Your task to perform on an android device: Search for asus rog on bestbuy, select the first entry, and add it to the cart. Image 0: 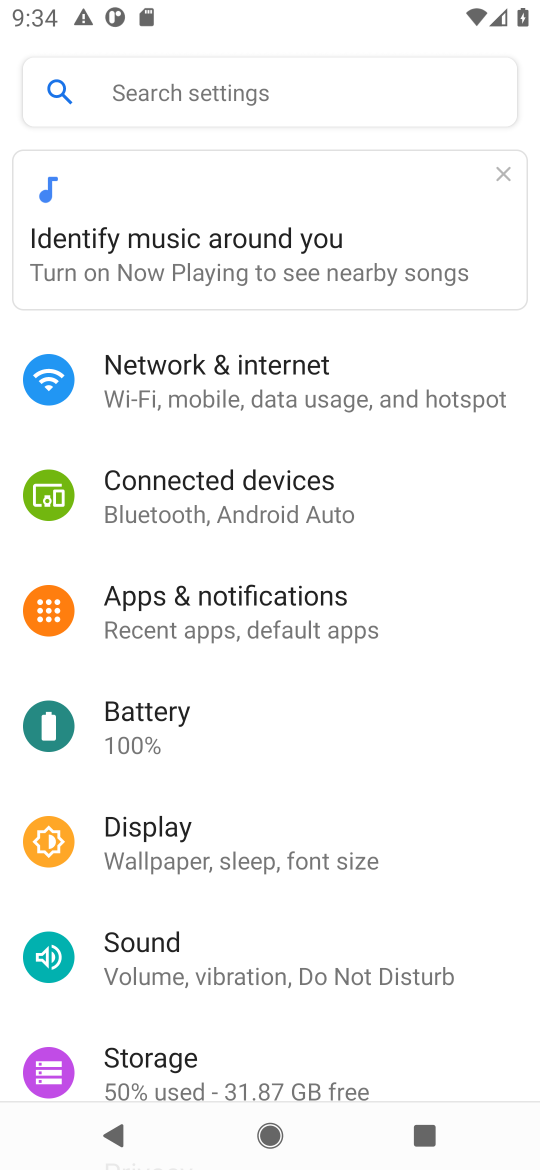
Step 0: press home button
Your task to perform on an android device: Search for asus rog on bestbuy, select the first entry, and add it to the cart. Image 1: 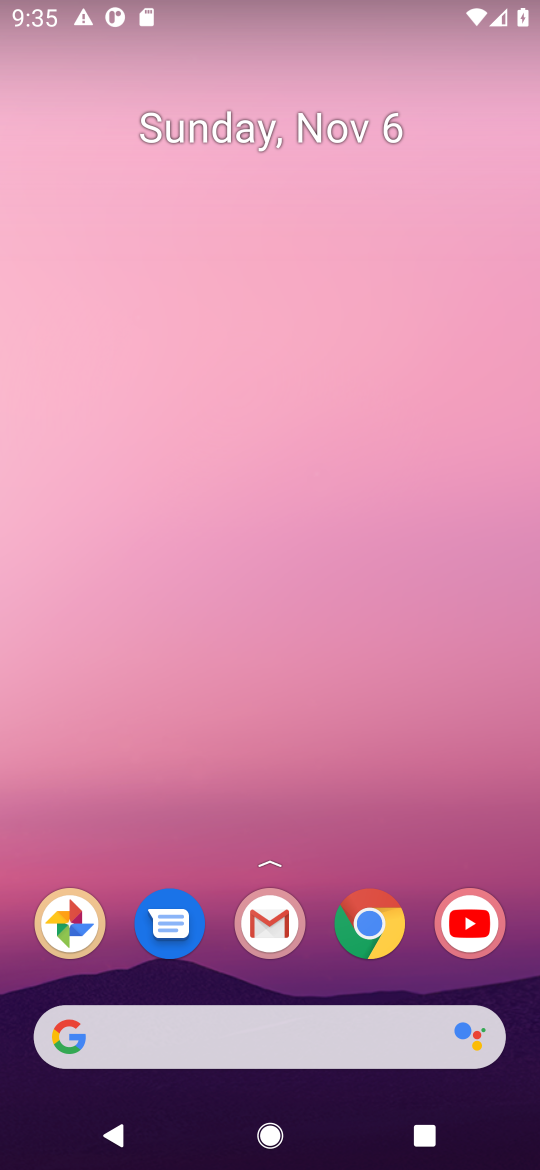
Step 1: click (359, 928)
Your task to perform on an android device: Search for asus rog on bestbuy, select the first entry, and add it to the cart. Image 2: 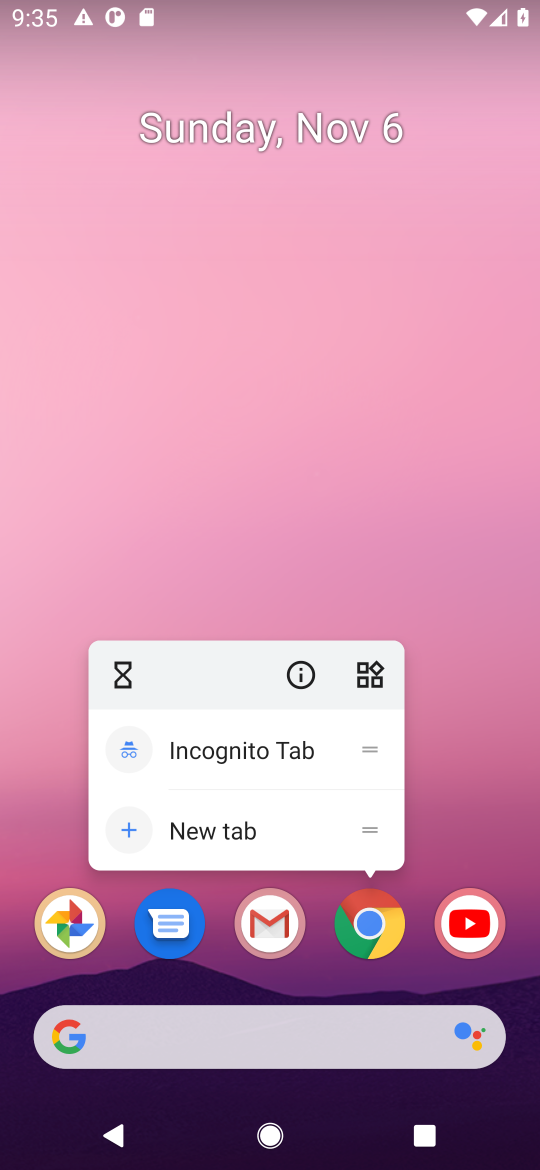
Step 2: click (367, 931)
Your task to perform on an android device: Search for asus rog on bestbuy, select the first entry, and add it to the cart. Image 3: 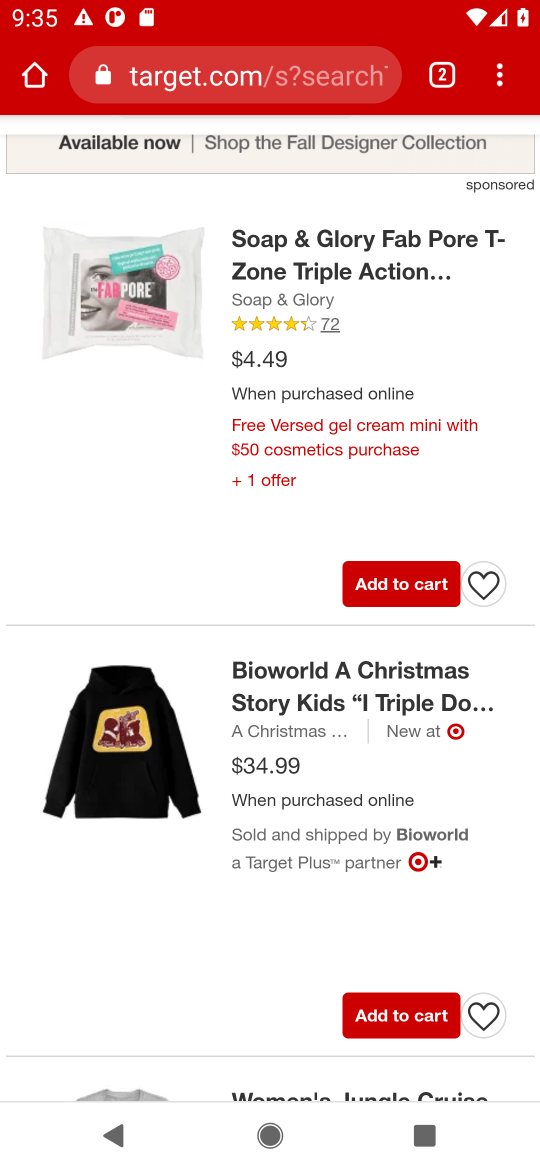
Step 3: click (167, 82)
Your task to perform on an android device: Search for asus rog on bestbuy, select the first entry, and add it to the cart. Image 4: 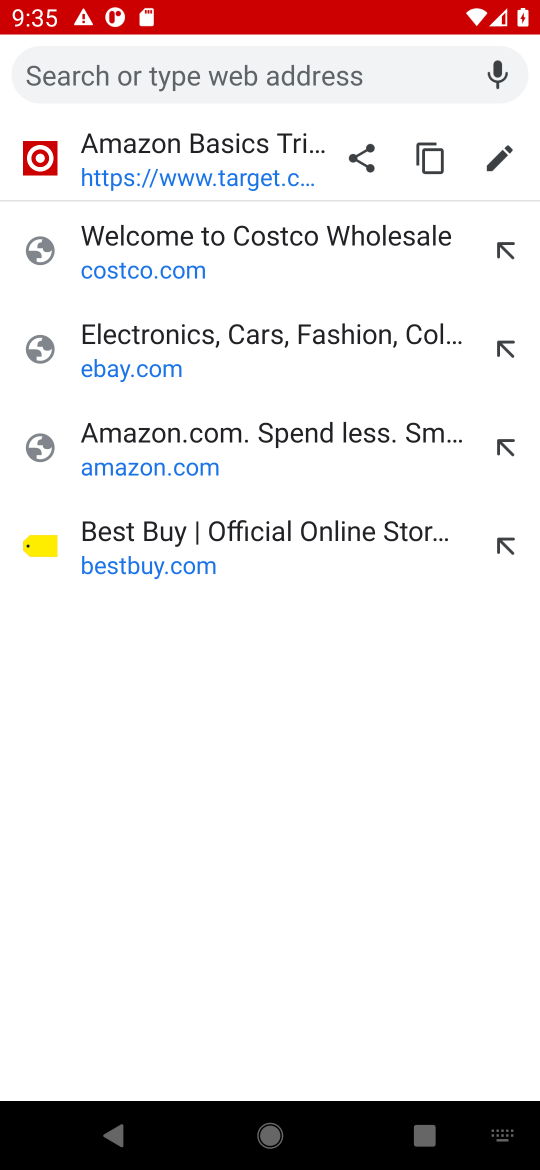
Step 4: click (159, 569)
Your task to perform on an android device: Search for asus rog on bestbuy, select the first entry, and add it to the cart. Image 5: 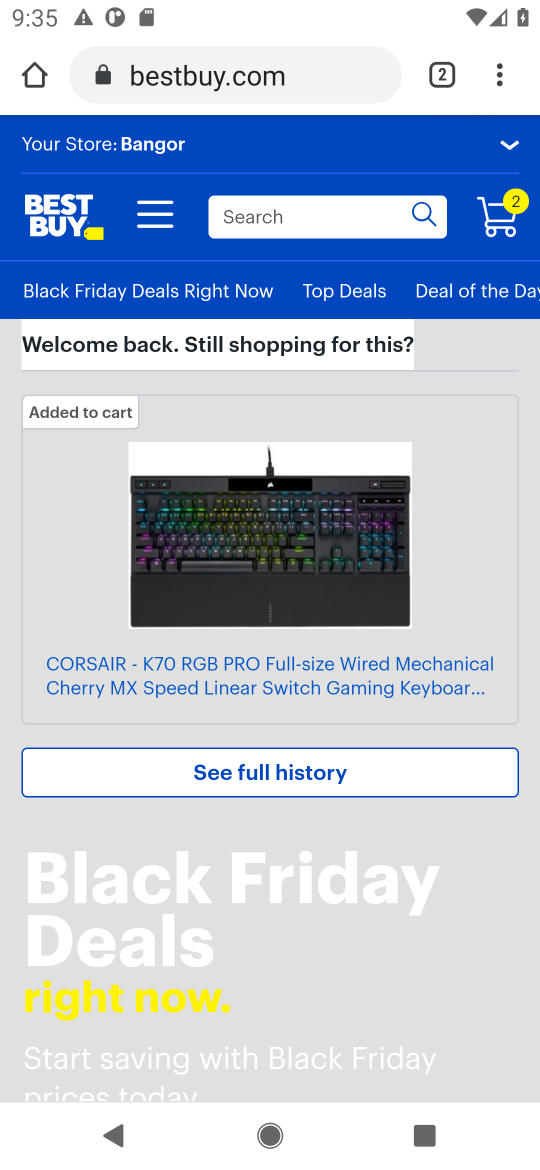
Step 5: click (239, 219)
Your task to perform on an android device: Search for asus rog on bestbuy, select the first entry, and add it to the cart. Image 6: 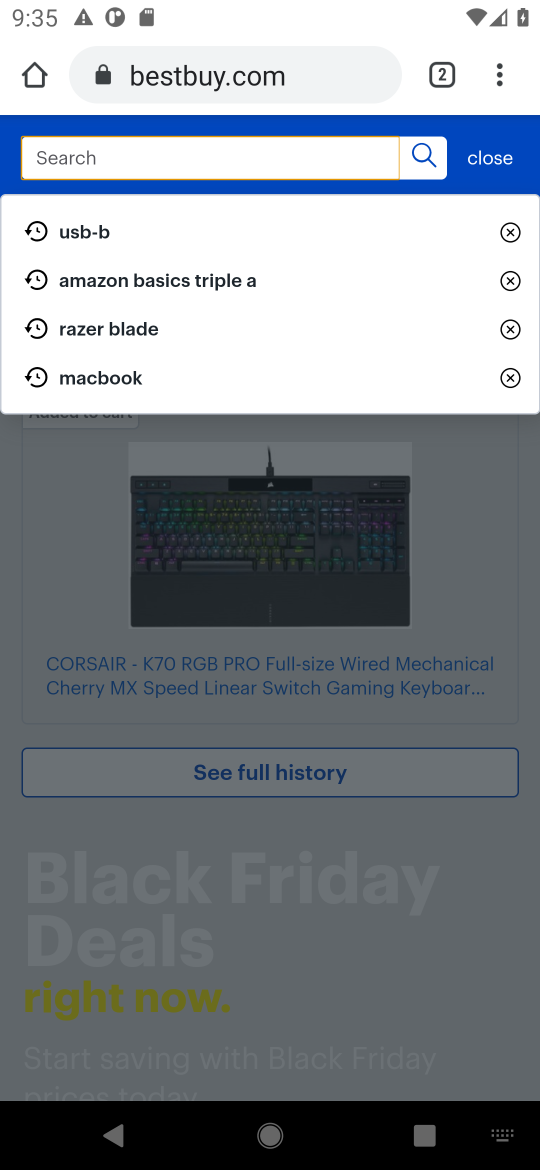
Step 6: type "asus rog"
Your task to perform on an android device: Search for asus rog on bestbuy, select the first entry, and add it to the cart. Image 7: 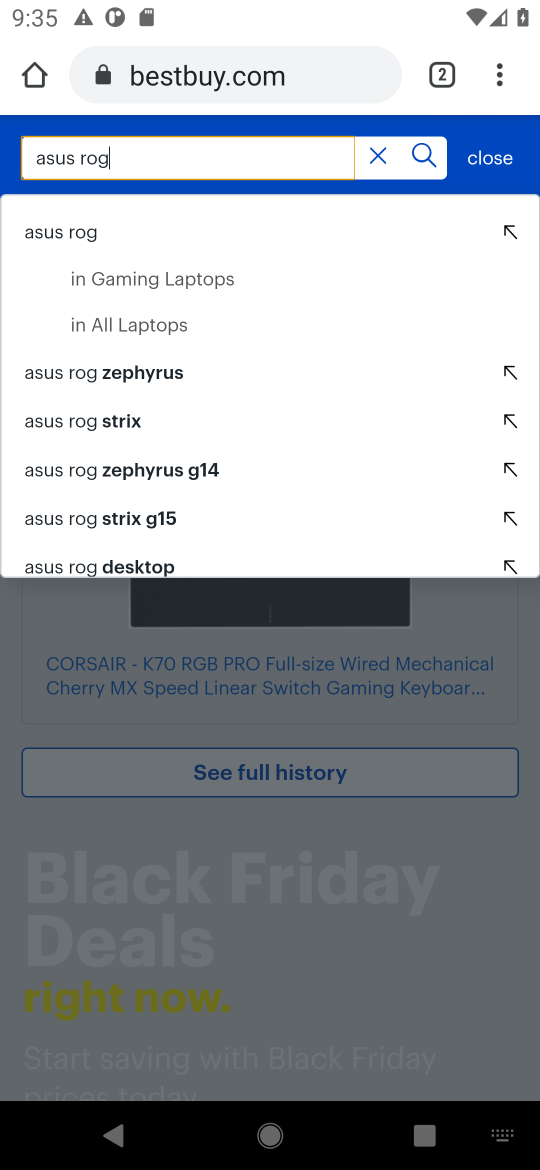
Step 7: click (38, 241)
Your task to perform on an android device: Search for asus rog on bestbuy, select the first entry, and add it to the cart. Image 8: 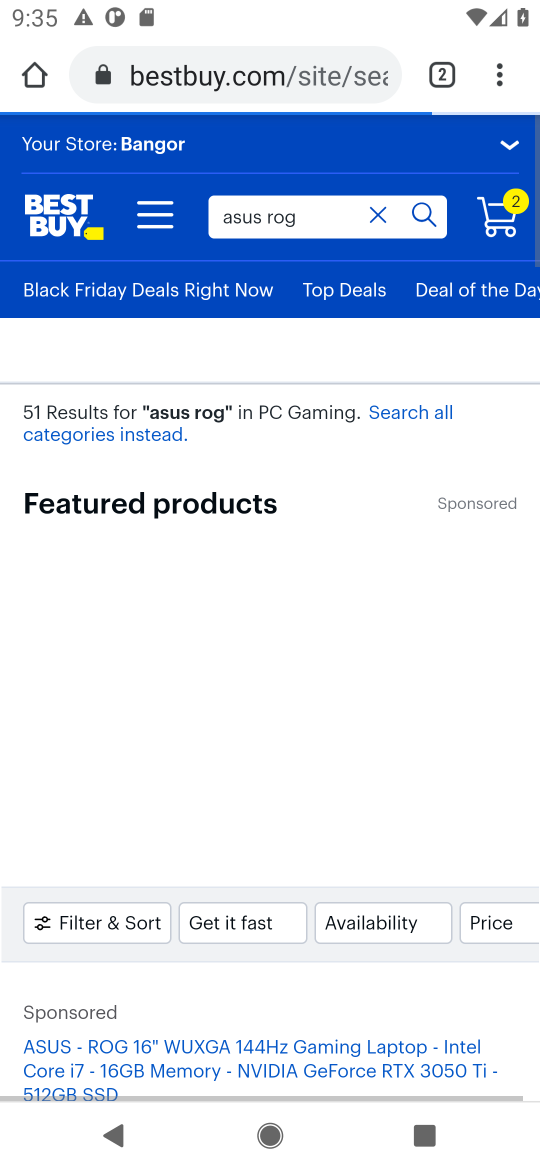
Step 8: drag from (306, 988) to (315, 541)
Your task to perform on an android device: Search for asus rog on bestbuy, select the first entry, and add it to the cart. Image 9: 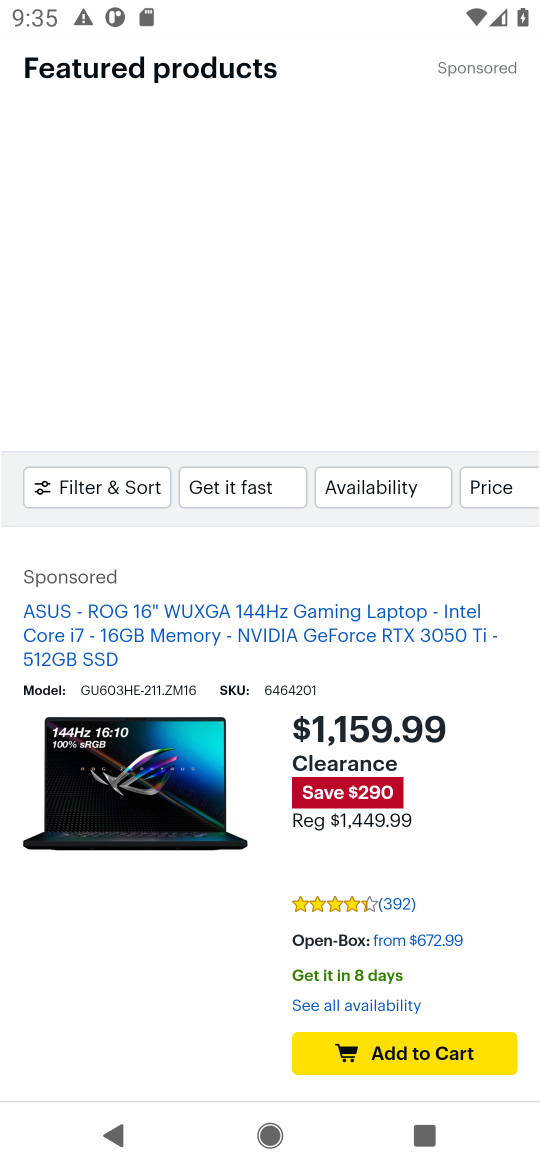
Step 9: click (395, 1005)
Your task to perform on an android device: Search for asus rog on bestbuy, select the first entry, and add it to the cart. Image 10: 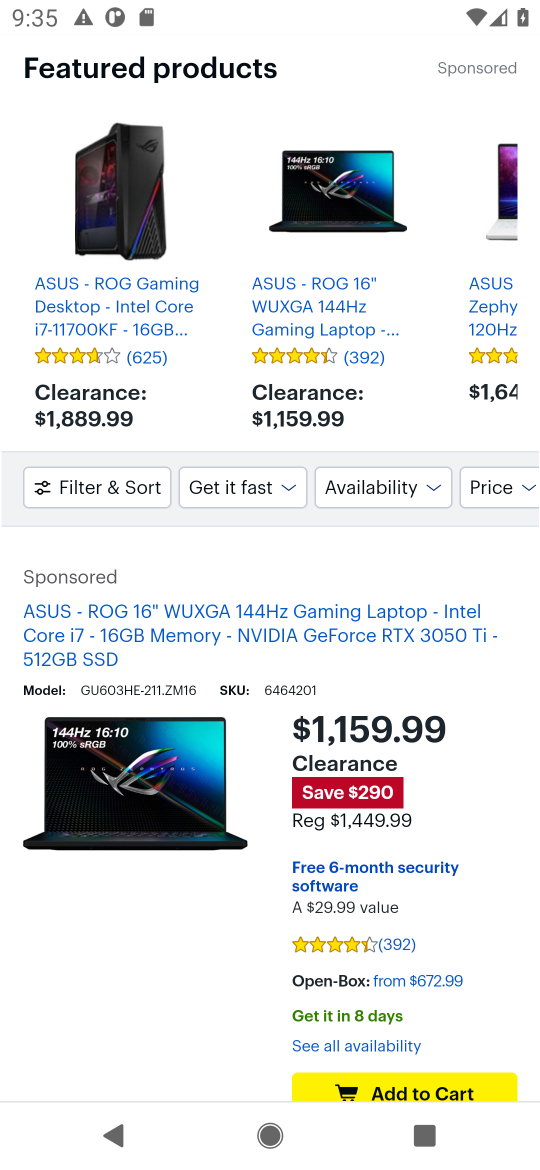
Step 10: drag from (436, 286) to (424, 795)
Your task to perform on an android device: Search for asus rog on bestbuy, select the first entry, and add it to the cart. Image 11: 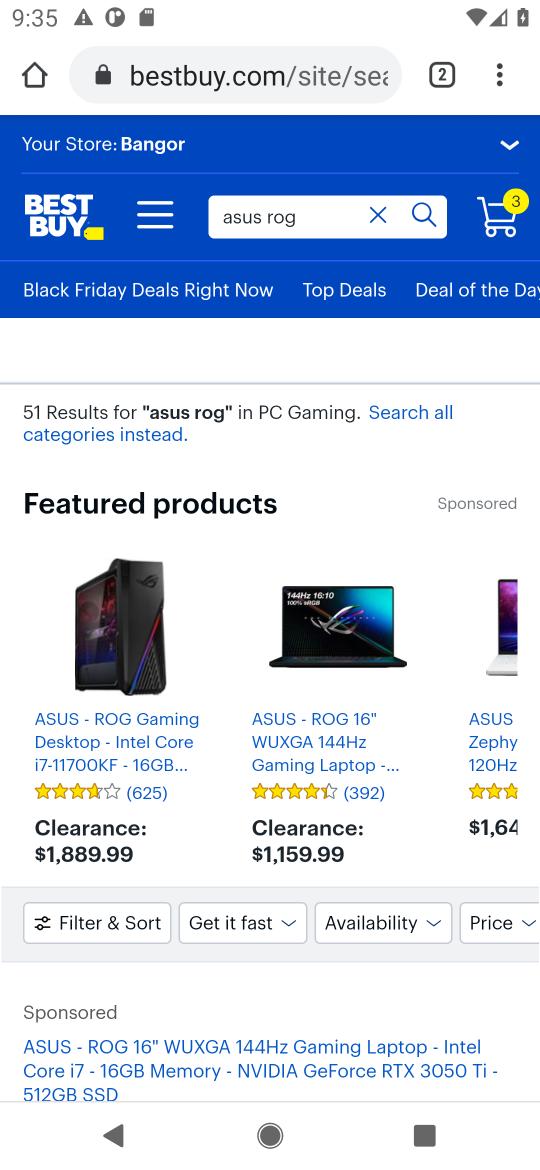
Step 11: click (507, 213)
Your task to perform on an android device: Search for asus rog on bestbuy, select the first entry, and add it to the cart. Image 12: 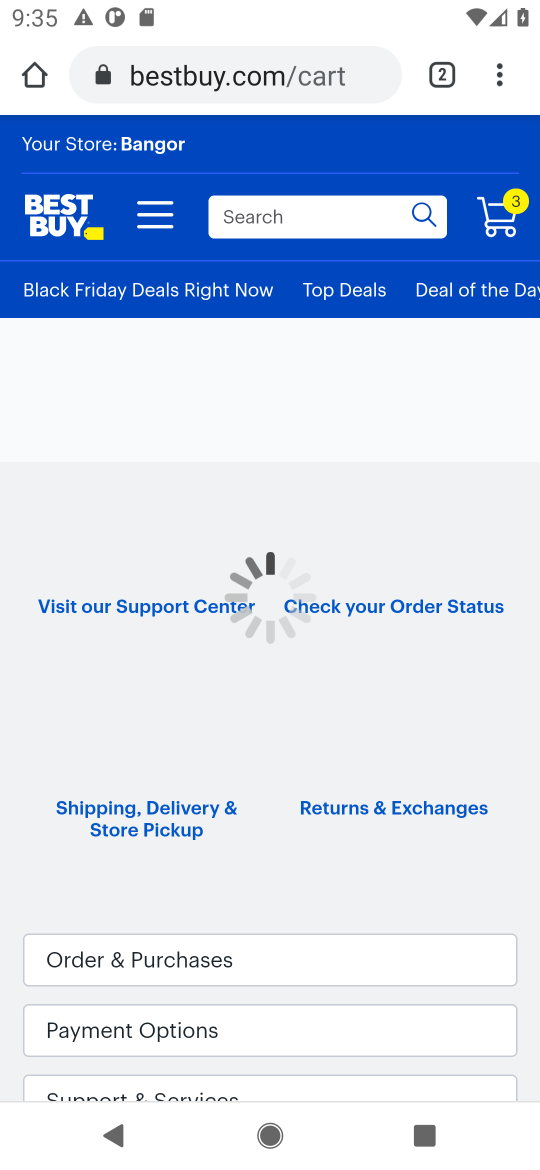
Step 12: task complete